Your task to perform on an android device: find photos in the google photos app Image 0: 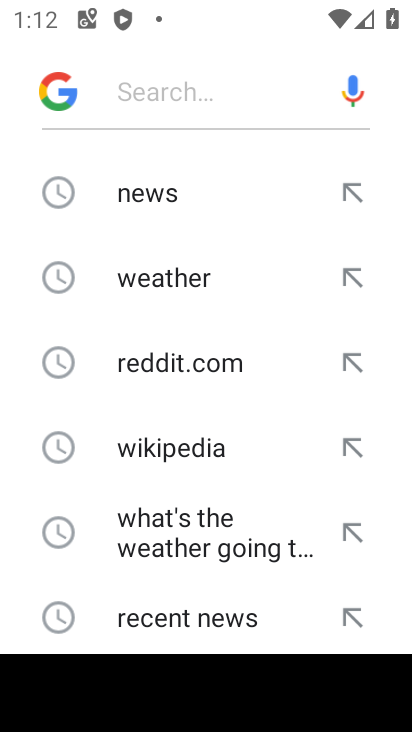
Step 0: press home button
Your task to perform on an android device: find photos in the google photos app Image 1: 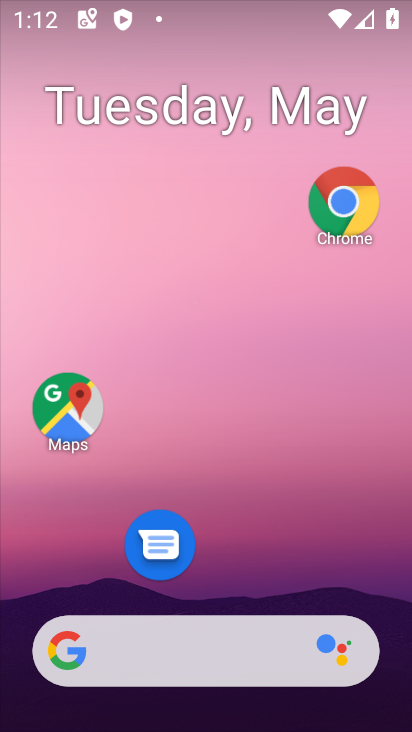
Step 1: click (197, 564)
Your task to perform on an android device: find photos in the google photos app Image 2: 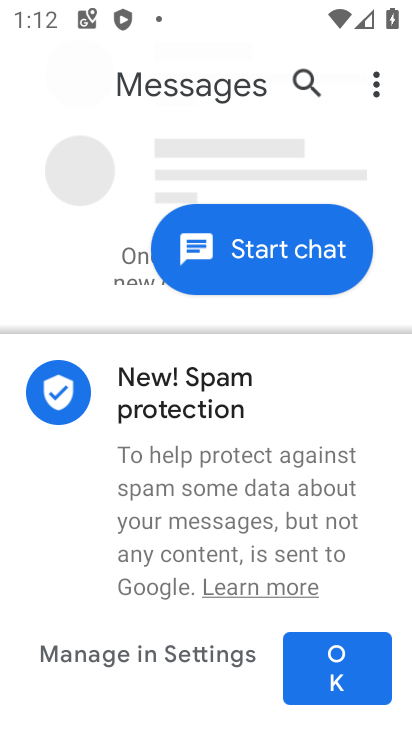
Step 2: drag from (226, 583) to (308, 107)
Your task to perform on an android device: find photos in the google photos app Image 3: 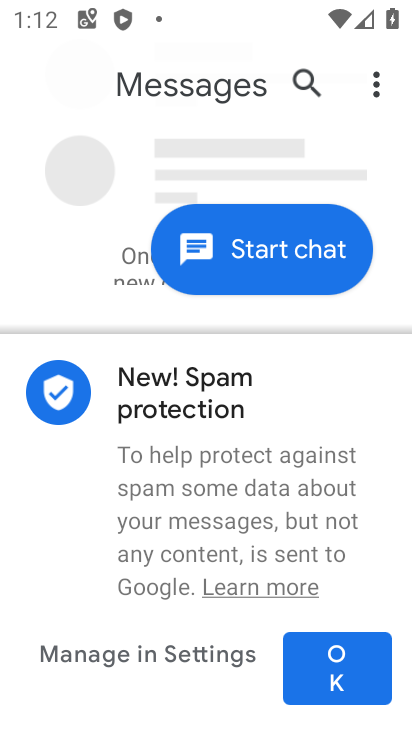
Step 3: press home button
Your task to perform on an android device: find photos in the google photos app Image 4: 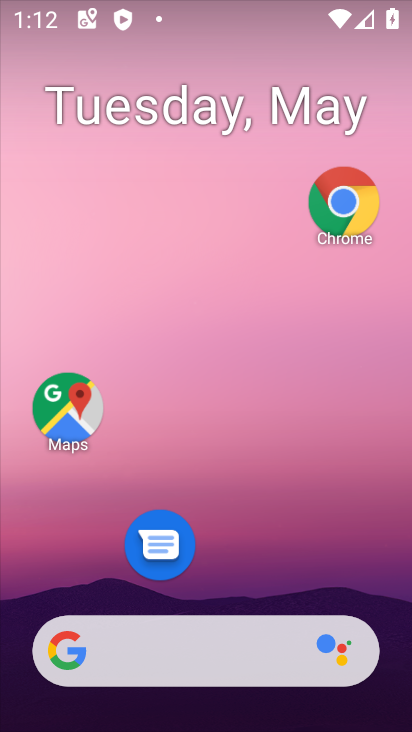
Step 4: drag from (229, 603) to (239, 59)
Your task to perform on an android device: find photos in the google photos app Image 5: 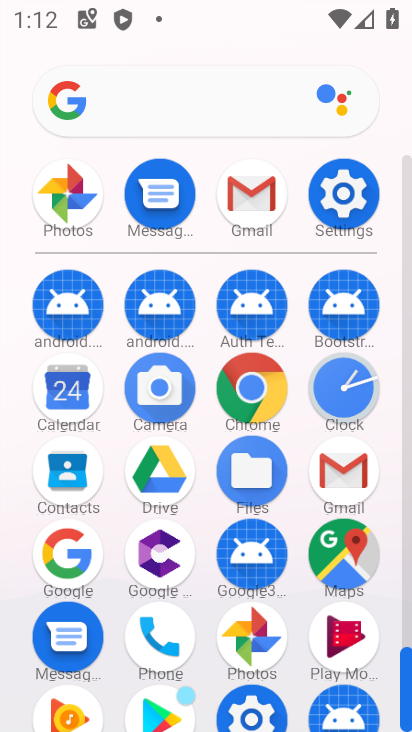
Step 5: click (86, 195)
Your task to perform on an android device: find photos in the google photos app Image 6: 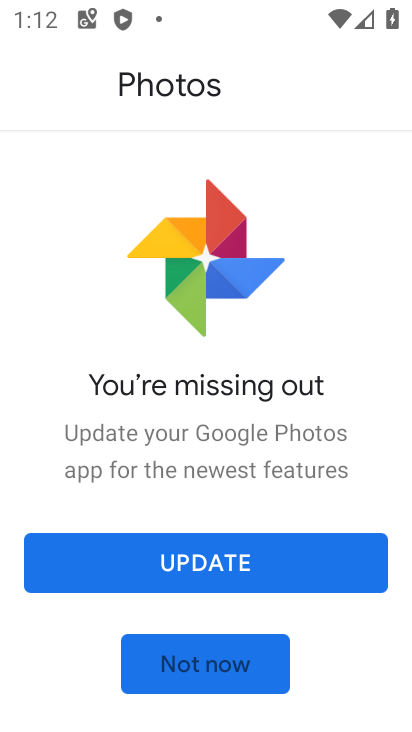
Step 6: click (246, 639)
Your task to perform on an android device: find photos in the google photos app Image 7: 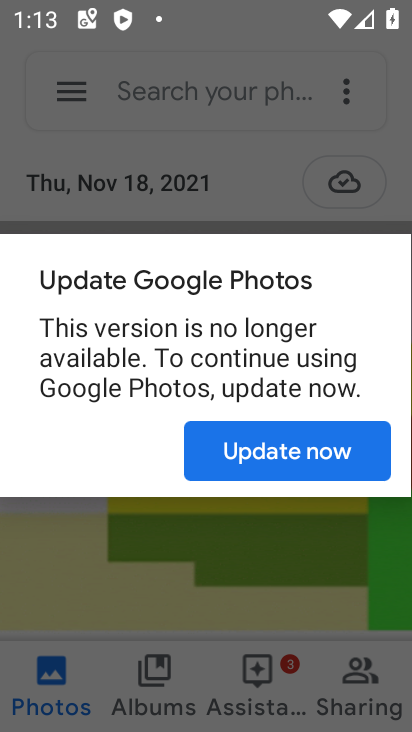
Step 7: click (266, 429)
Your task to perform on an android device: find photos in the google photos app Image 8: 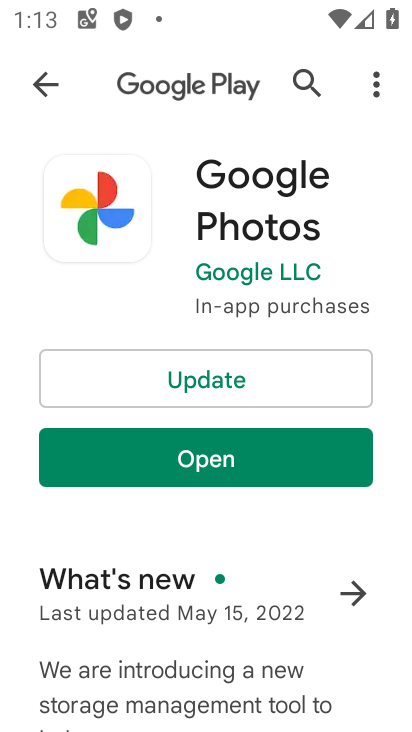
Step 8: click (335, 472)
Your task to perform on an android device: find photos in the google photos app Image 9: 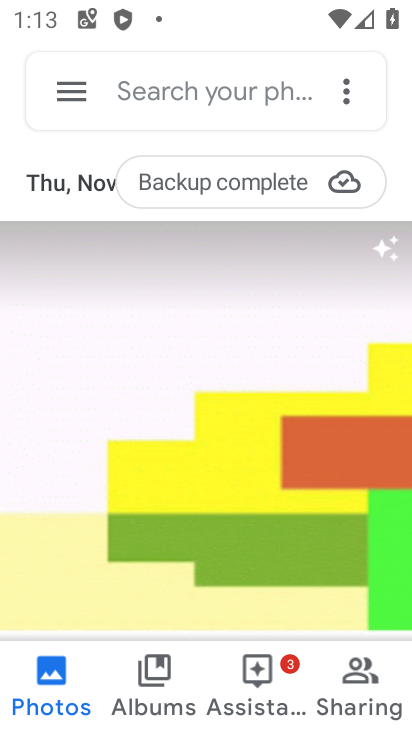
Step 9: task complete